Your task to perform on an android device: find photos in the google photos app Image 0: 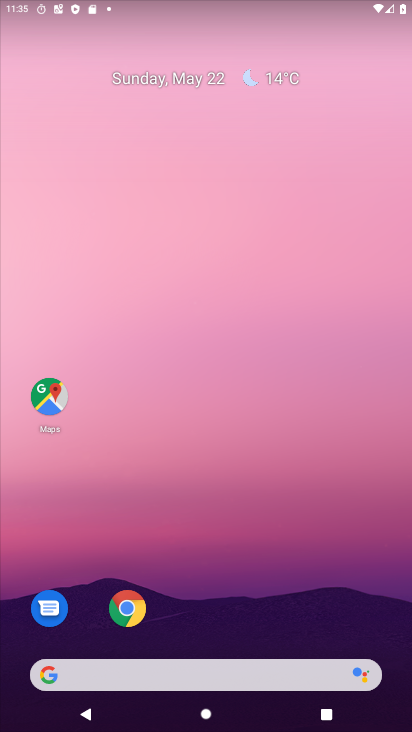
Step 0: drag from (273, 603) to (276, 55)
Your task to perform on an android device: find photos in the google photos app Image 1: 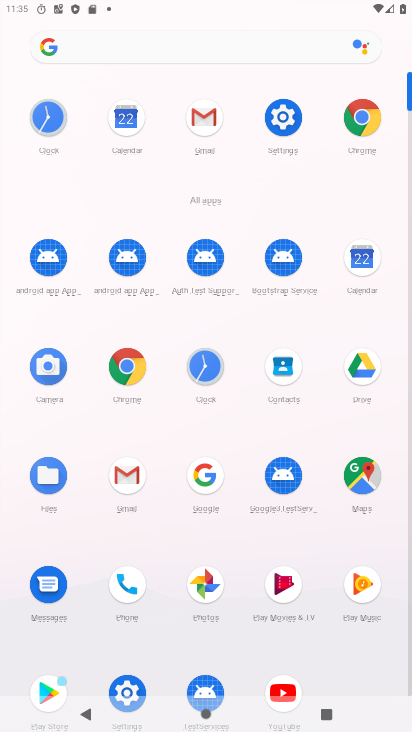
Step 1: click (210, 591)
Your task to perform on an android device: find photos in the google photos app Image 2: 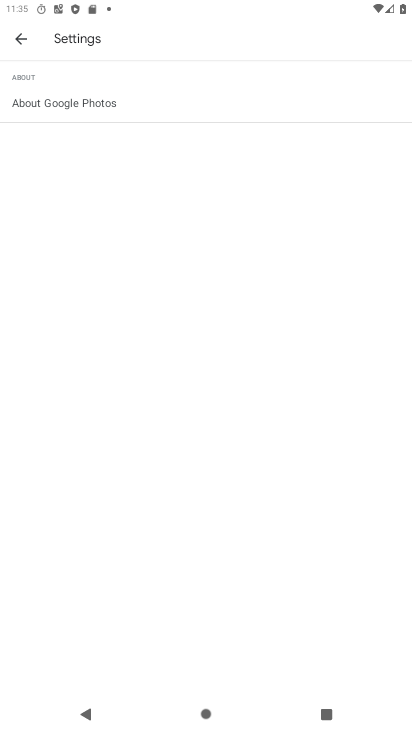
Step 2: click (24, 43)
Your task to perform on an android device: find photos in the google photos app Image 3: 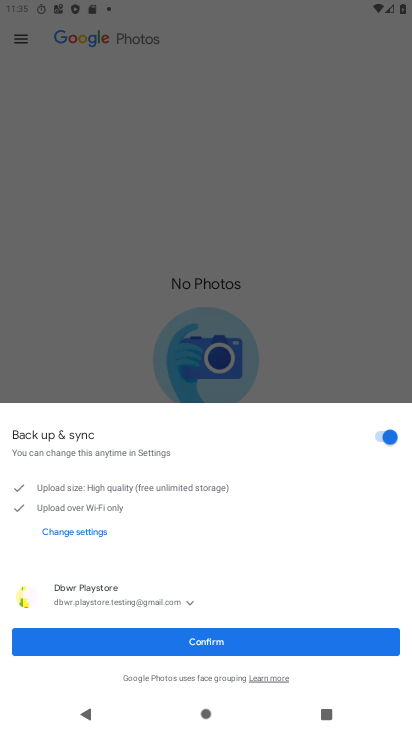
Step 3: click (234, 635)
Your task to perform on an android device: find photos in the google photos app Image 4: 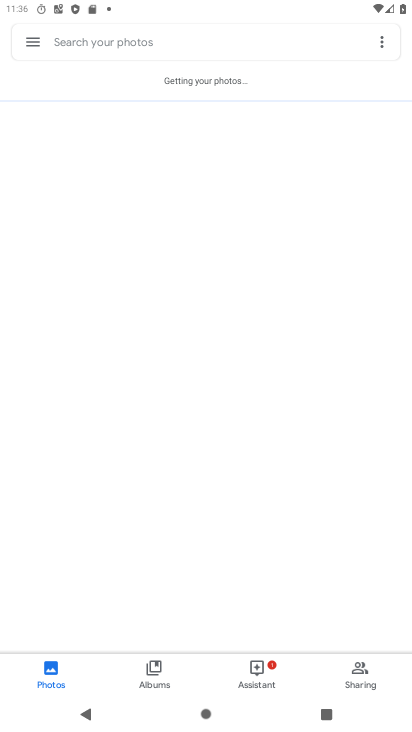
Step 4: task complete